Your task to perform on an android device: Add "bose soundlink" to the cart on walmart.com Image 0: 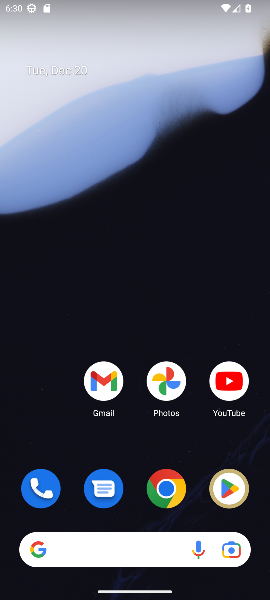
Step 0: drag from (67, 440) to (244, 447)
Your task to perform on an android device: Add "bose soundlink" to the cart on walmart.com Image 1: 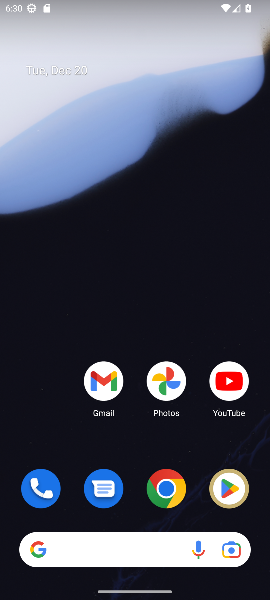
Step 1: click (42, 356)
Your task to perform on an android device: Add "bose soundlink" to the cart on walmart.com Image 2: 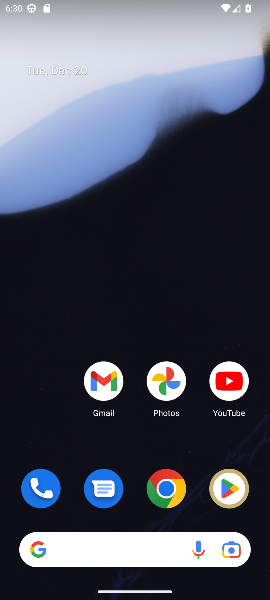
Step 2: drag from (58, 428) to (36, 36)
Your task to perform on an android device: Add "bose soundlink" to the cart on walmart.com Image 3: 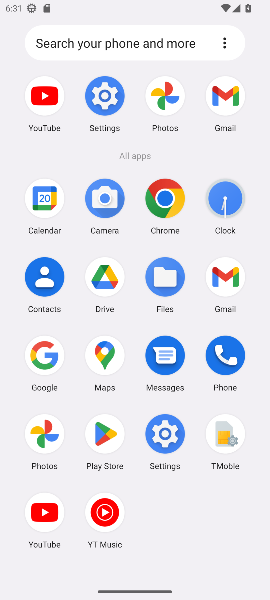
Step 3: click (42, 360)
Your task to perform on an android device: Add "bose soundlink" to the cart on walmart.com Image 4: 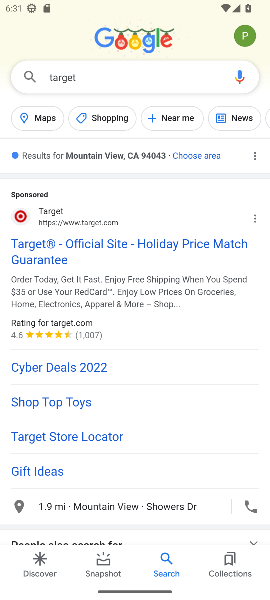
Step 4: click (90, 245)
Your task to perform on an android device: Add "bose soundlink" to the cart on walmart.com Image 5: 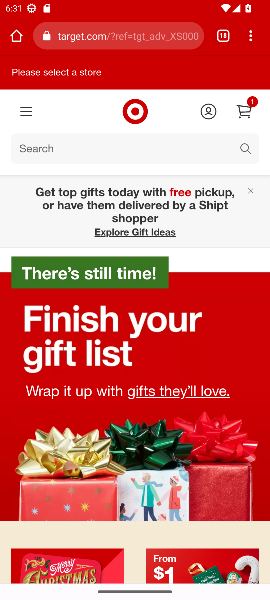
Step 5: press back button
Your task to perform on an android device: Add "bose soundlink" to the cart on walmart.com Image 6: 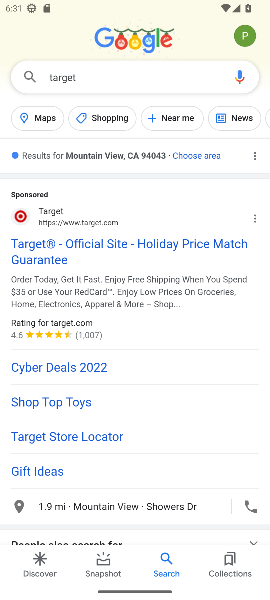
Step 6: click (95, 77)
Your task to perform on an android device: Add "bose soundlink" to the cart on walmart.com Image 7: 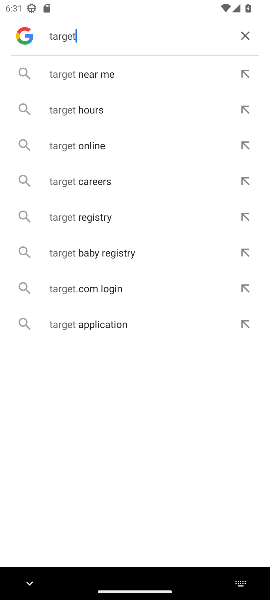
Step 7: click (247, 35)
Your task to perform on an android device: Add "bose soundlink" to the cart on walmart.com Image 8: 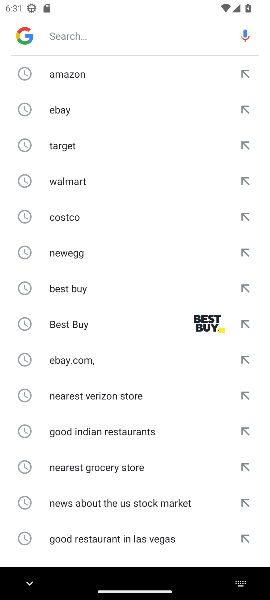
Step 8: type "walmart.com"
Your task to perform on an android device: Add "bose soundlink" to the cart on walmart.com Image 9: 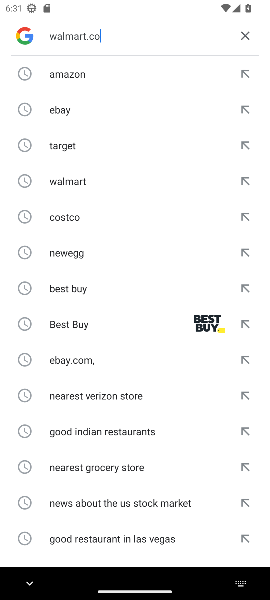
Step 9: press enter
Your task to perform on an android device: Add "bose soundlink" to the cart on walmart.com Image 10: 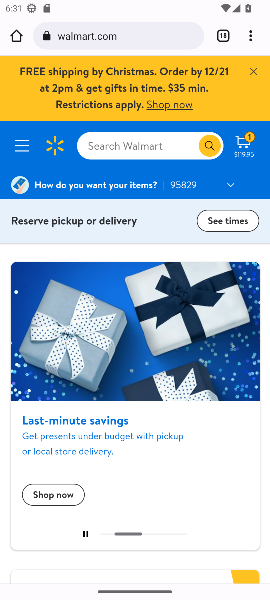
Step 10: click (113, 141)
Your task to perform on an android device: Add "bose soundlink" to the cart on walmart.com Image 11: 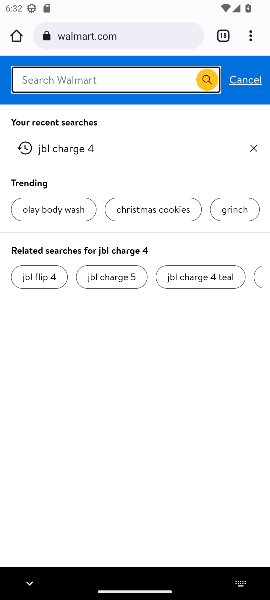
Step 11: type "bose soundlink"
Your task to perform on an android device: Add "bose soundlink" to the cart on walmart.com Image 12: 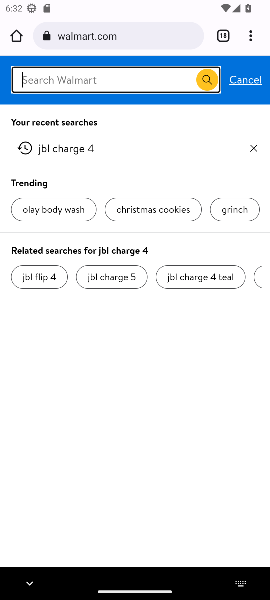
Step 12: press enter
Your task to perform on an android device: Add "bose soundlink" to the cart on walmart.com Image 13: 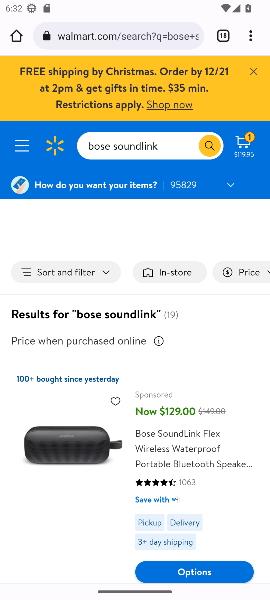
Step 13: drag from (202, 493) to (202, 327)
Your task to perform on an android device: Add "bose soundlink" to the cart on walmart.com Image 14: 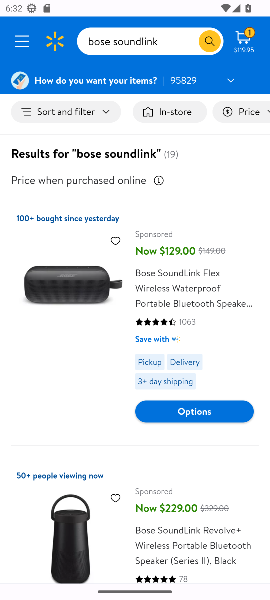
Step 14: click (173, 293)
Your task to perform on an android device: Add "bose soundlink" to the cart on walmart.com Image 15: 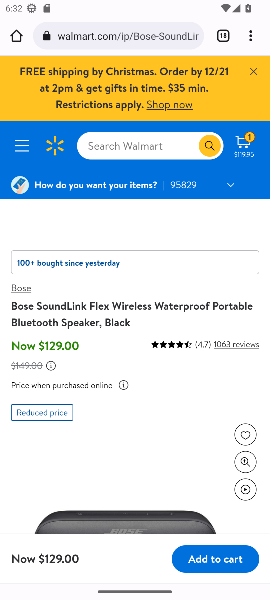
Step 15: click (208, 560)
Your task to perform on an android device: Add "bose soundlink" to the cart on walmart.com Image 16: 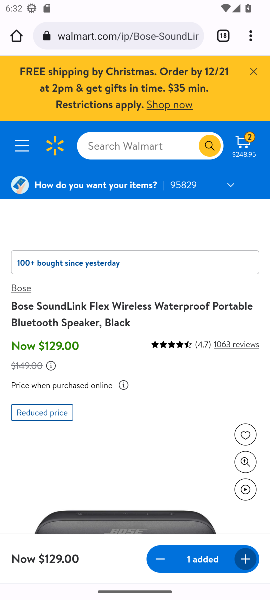
Step 16: task complete